Your task to perform on an android device: Go to wifi settings Image 0: 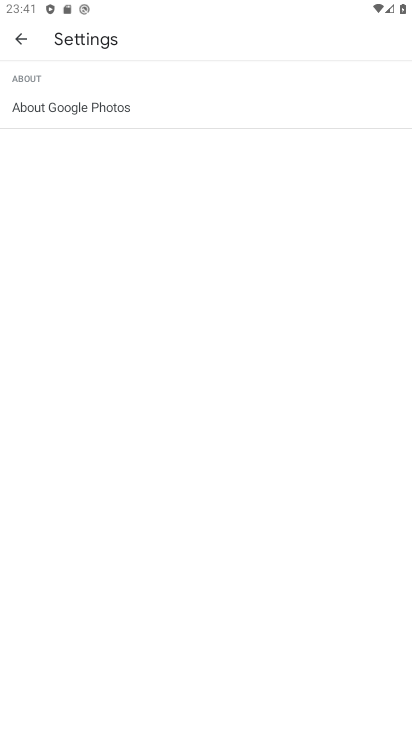
Step 0: press home button
Your task to perform on an android device: Go to wifi settings Image 1: 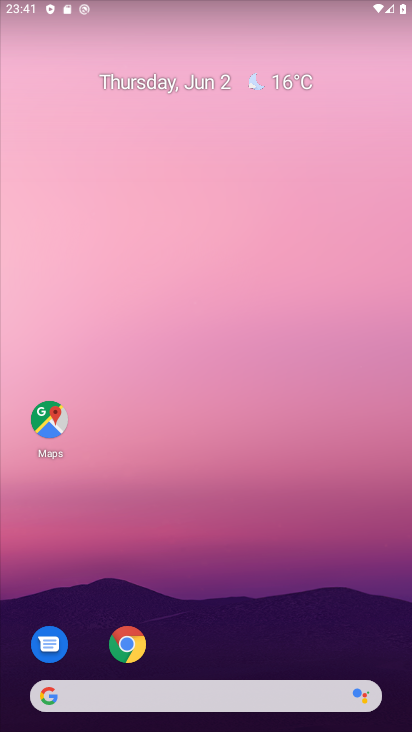
Step 1: drag from (188, 611) to (239, 269)
Your task to perform on an android device: Go to wifi settings Image 2: 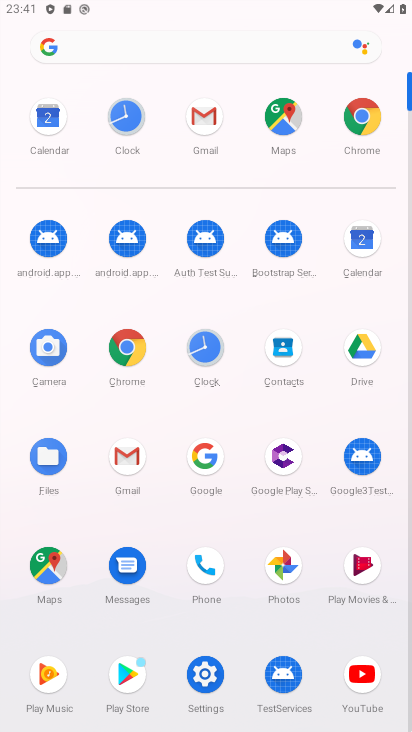
Step 2: click (198, 665)
Your task to perform on an android device: Go to wifi settings Image 3: 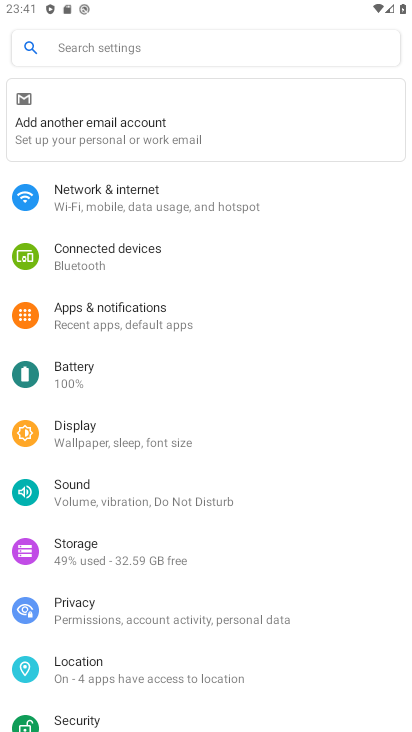
Step 3: click (211, 217)
Your task to perform on an android device: Go to wifi settings Image 4: 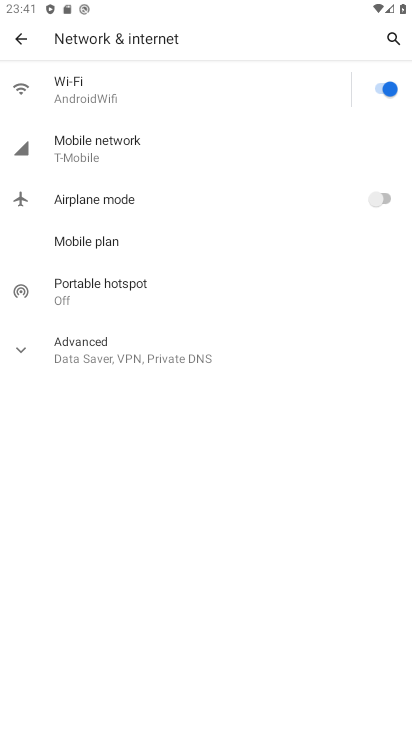
Step 4: click (185, 100)
Your task to perform on an android device: Go to wifi settings Image 5: 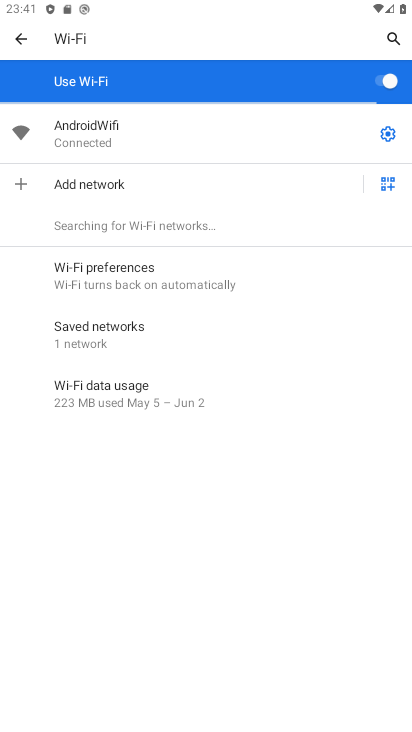
Step 5: task complete